Your task to perform on an android device: Go to Amazon Image 0: 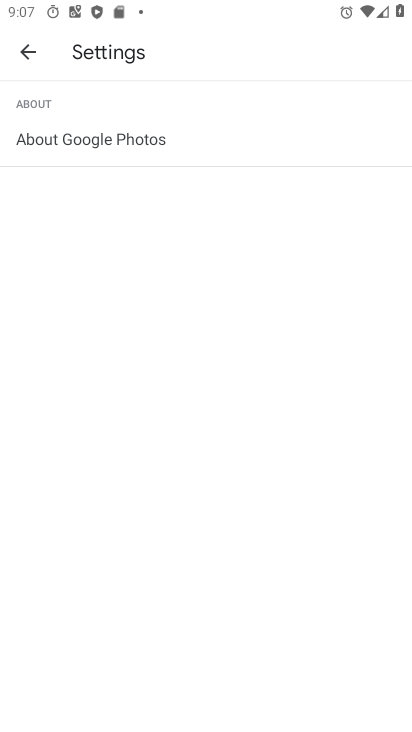
Step 0: press home button
Your task to perform on an android device: Go to Amazon Image 1: 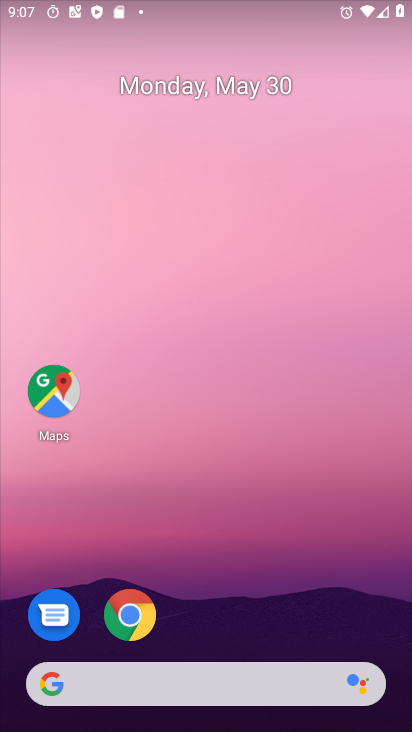
Step 1: drag from (320, 582) to (322, 1)
Your task to perform on an android device: Go to Amazon Image 2: 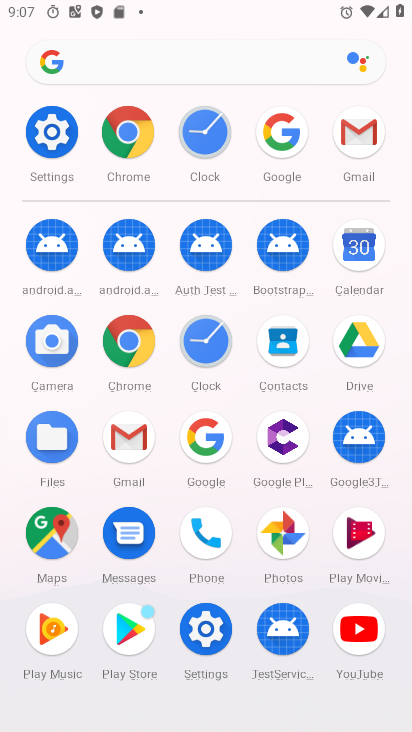
Step 2: click (114, 137)
Your task to perform on an android device: Go to Amazon Image 3: 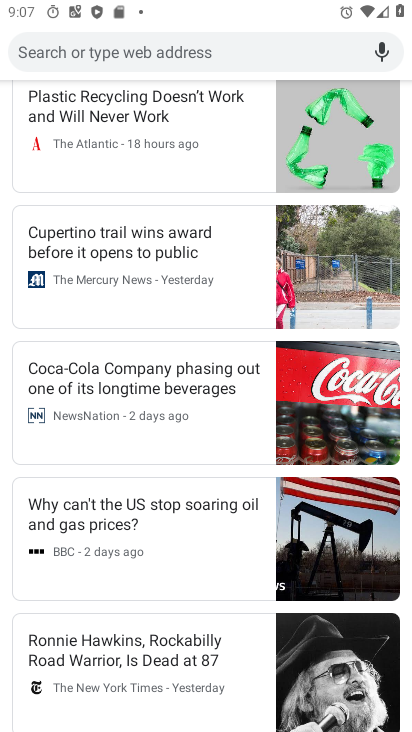
Step 3: drag from (124, 168) to (209, 677)
Your task to perform on an android device: Go to Amazon Image 4: 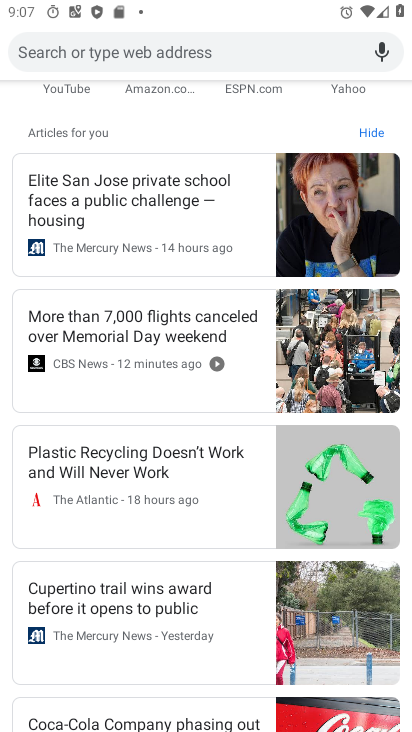
Step 4: drag from (145, 222) to (233, 654)
Your task to perform on an android device: Go to Amazon Image 5: 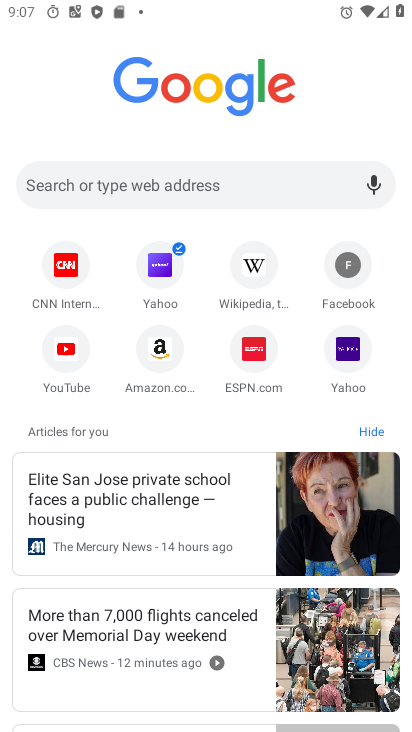
Step 5: click (158, 343)
Your task to perform on an android device: Go to Amazon Image 6: 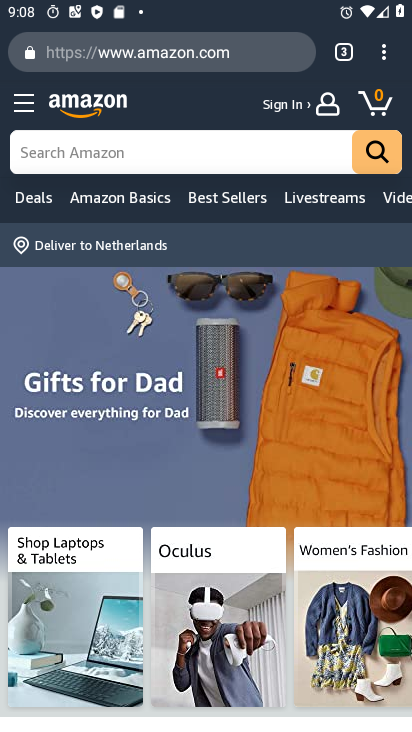
Step 6: task complete